Your task to perform on an android device: open app "Gmail" (install if not already installed) and enter user name: "undecidable@inbox.com" and password: "discouraging" Image 0: 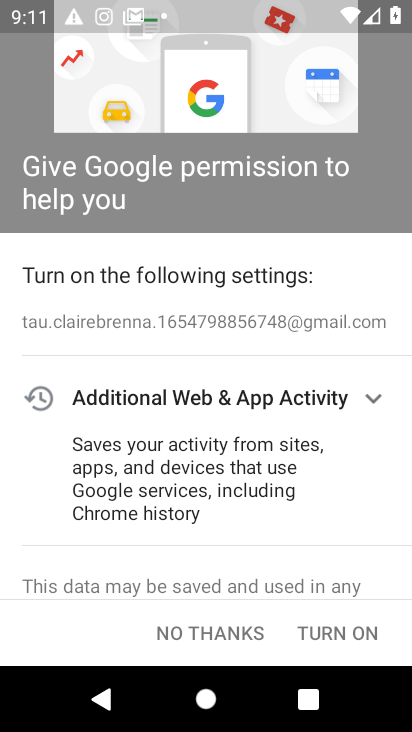
Step 0: press home button
Your task to perform on an android device: open app "Gmail" (install if not already installed) and enter user name: "undecidable@inbox.com" and password: "discouraging" Image 1: 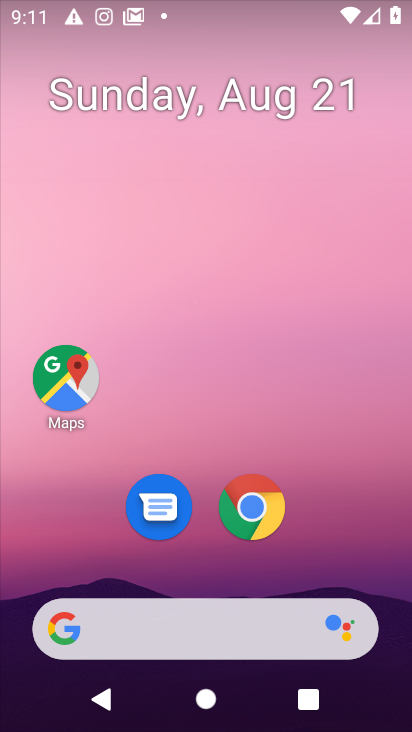
Step 1: drag from (203, 568) to (254, 61)
Your task to perform on an android device: open app "Gmail" (install if not already installed) and enter user name: "undecidable@inbox.com" and password: "discouraging" Image 2: 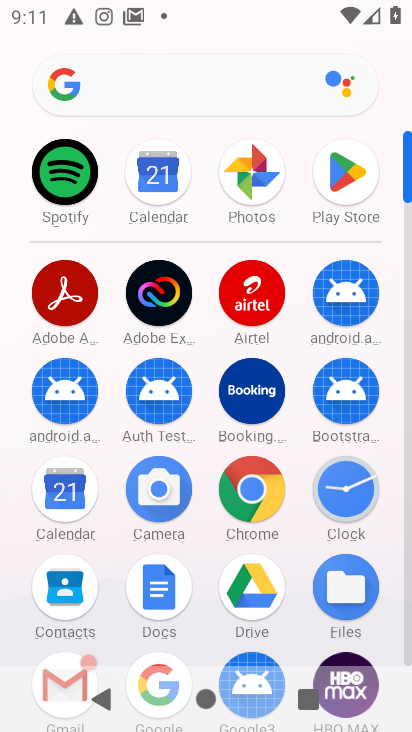
Step 2: click (361, 160)
Your task to perform on an android device: open app "Gmail" (install if not already installed) and enter user name: "undecidable@inbox.com" and password: "discouraging" Image 3: 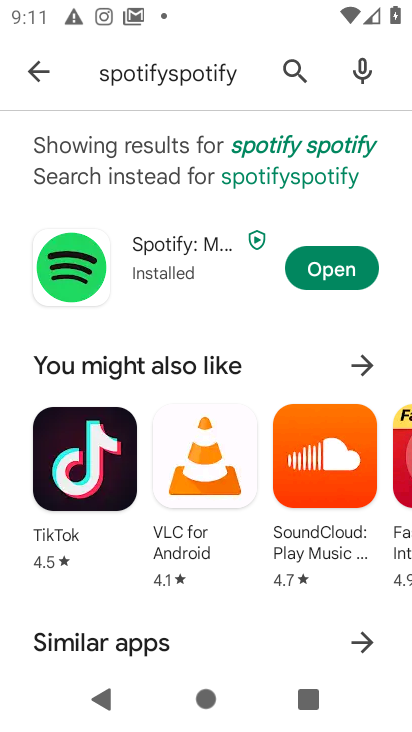
Step 3: click (36, 78)
Your task to perform on an android device: open app "Gmail" (install if not already installed) and enter user name: "undecidable@inbox.com" and password: "discouraging" Image 4: 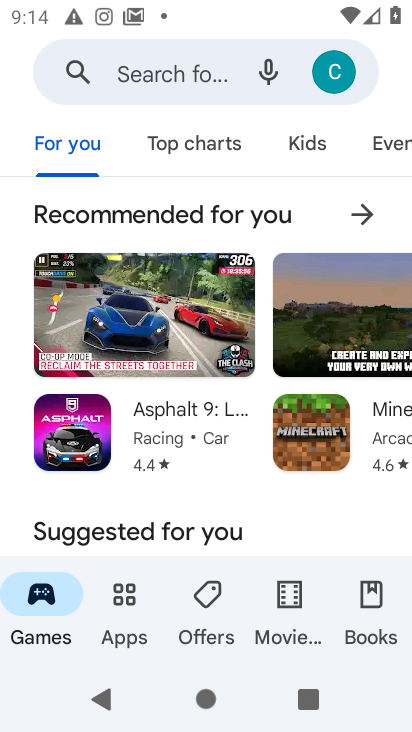
Step 4: drag from (56, 197) to (105, 325)
Your task to perform on an android device: open app "Gmail" (install if not already installed) and enter user name: "undecidable@inbox.com" and password: "discouraging" Image 5: 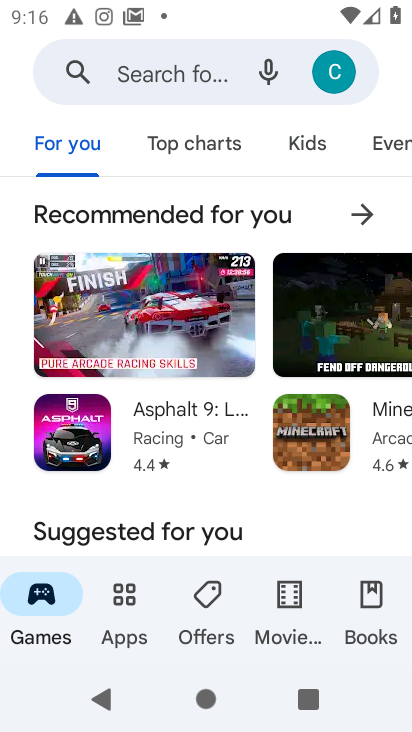
Step 5: click (105, 325)
Your task to perform on an android device: open app "Gmail" (install if not already installed) and enter user name: "undecidable@inbox.com" and password: "discouraging" Image 6: 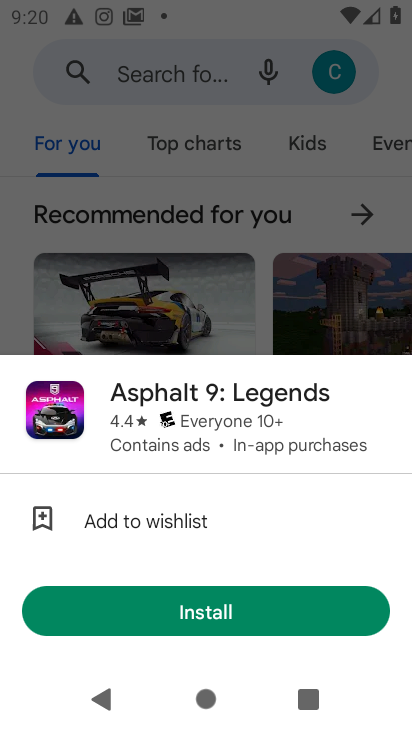
Step 6: drag from (30, 462) to (6, 574)
Your task to perform on an android device: open app "Gmail" (install if not already installed) and enter user name: "undecidable@inbox.com" and password: "discouraging" Image 7: 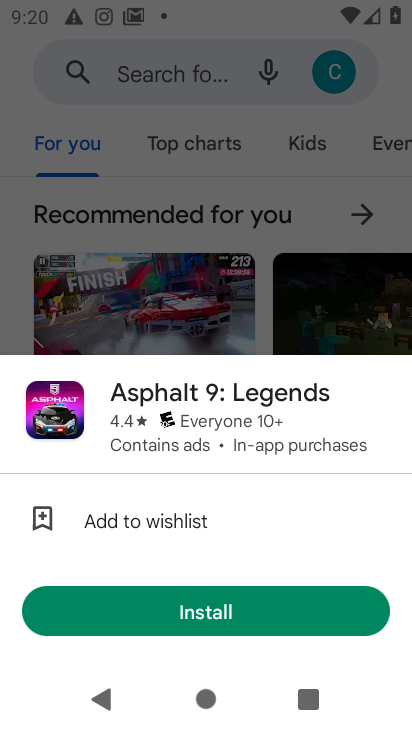
Step 7: click (150, 621)
Your task to perform on an android device: open app "Gmail" (install if not already installed) and enter user name: "undecidable@inbox.com" and password: "discouraging" Image 8: 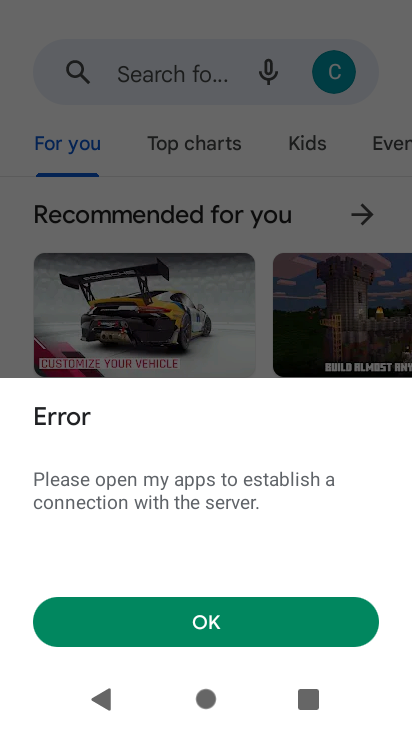
Step 8: task complete